Your task to perform on an android device: Open Google Chrome and click the shortcut for Amazon.com Image 0: 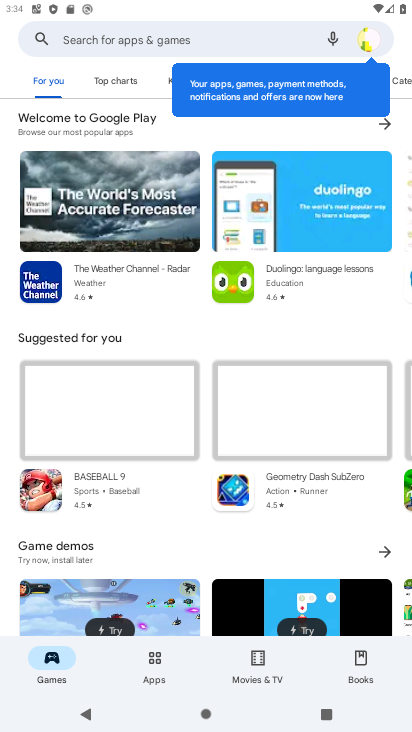
Step 0: press home button
Your task to perform on an android device: Open Google Chrome and click the shortcut for Amazon.com Image 1: 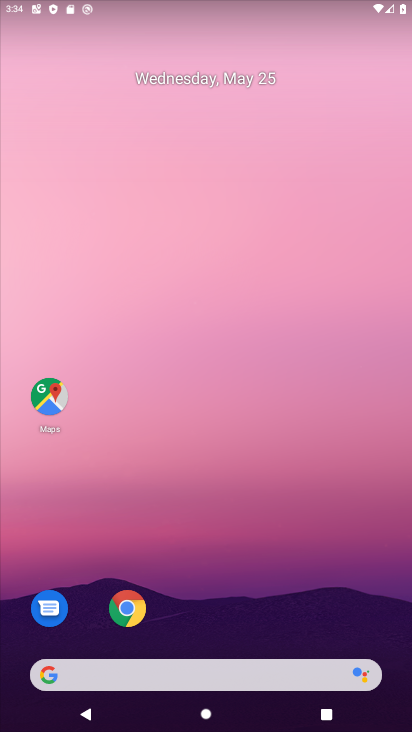
Step 1: click (129, 609)
Your task to perform on an android device: Open Google Chrome and click the shortcut for Amazon.com Image 2: 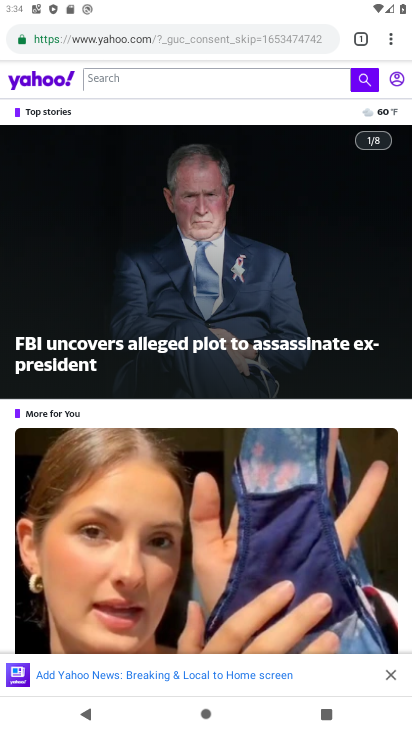
Step 2: click (363, 37)
Your task to perform on an android device: Open Google Chrome and click the shortcut for Amazon.com Image 3: 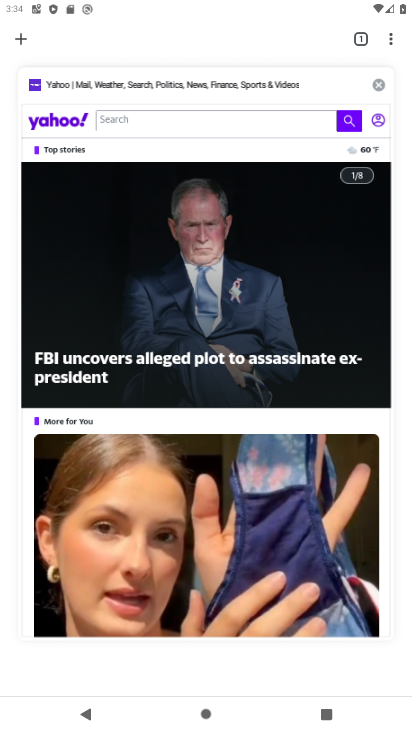
Step 3: click (24, 42)
Your task to perform on an android device: Open Google Chrome and click the shortcut for Amazon.com Image 4: 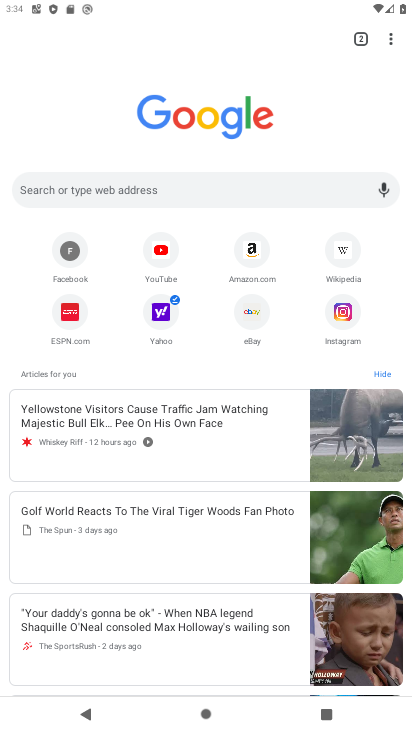
Step 4: click (253, 249)
Your task to perform on an android device: Open Google Chrome and click the shortcut for Amazon.com Image 5: 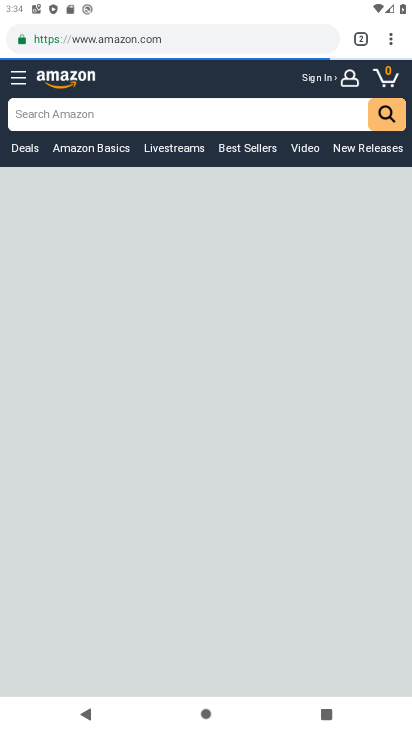
Step 5: task complete